Your task to perform on an android device: turn notification dots on Image 0: 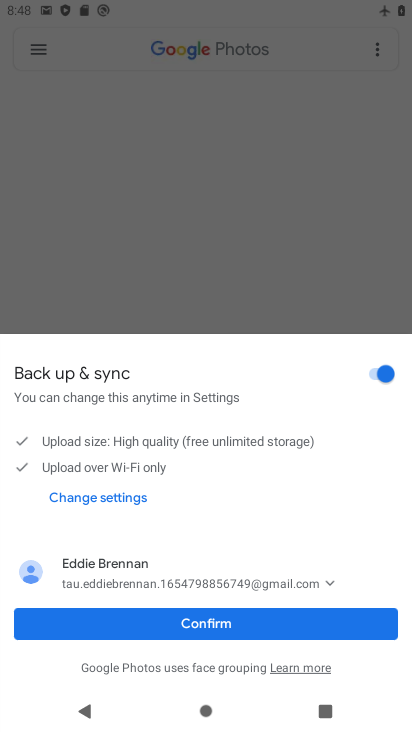
Step 0: press home button
Your task to perform on an android device: turn notification dots on Image 1: 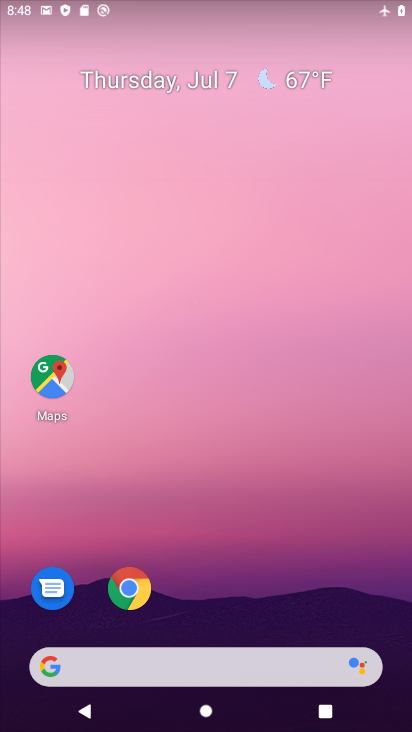
Step 1: drag from (235, 618) to (233, 46)
Your task to perform on an android device: turn notification dots on Image 2: 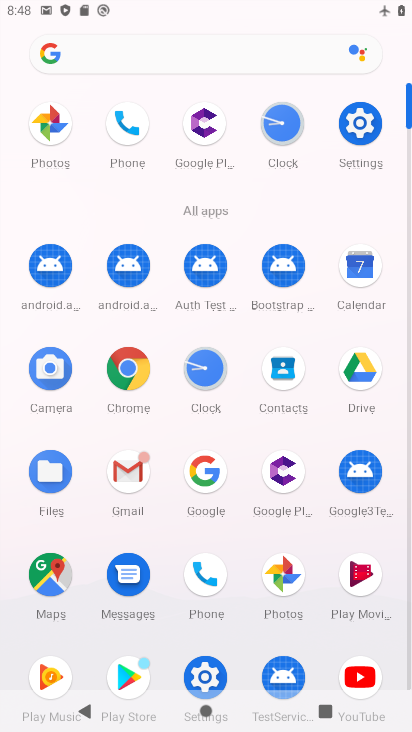
Step 2: click (358, 122)
Your task to perform on an android device: turn notification dots on Image 3: 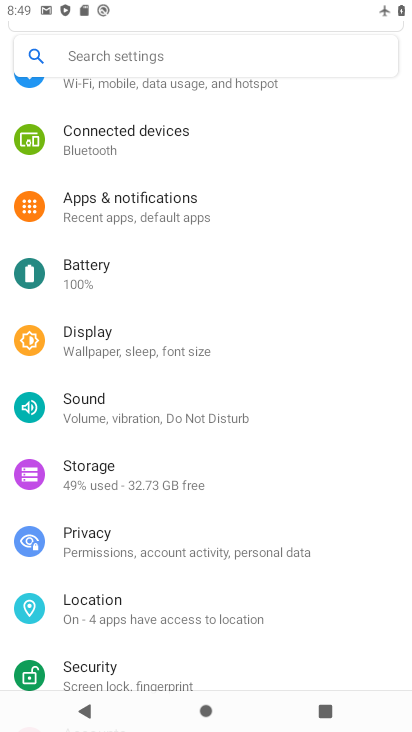
Step 3: click (102, 200)
Your task to perform on an android device: turn notification dots on Image 4: 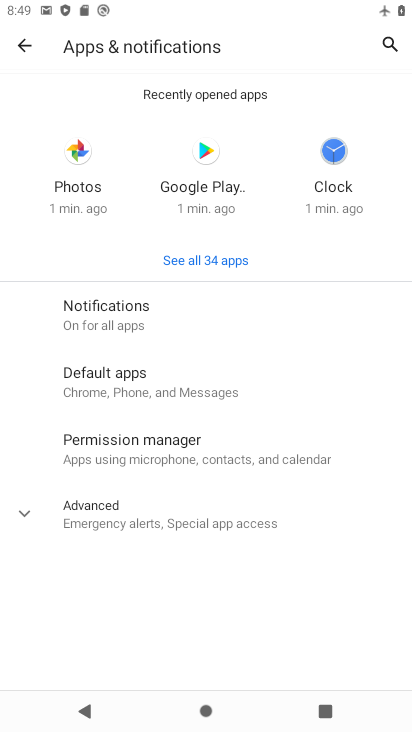
Step 4: click (114, 306)
Your task to perform on an android device: turn notification dots on Image 5: 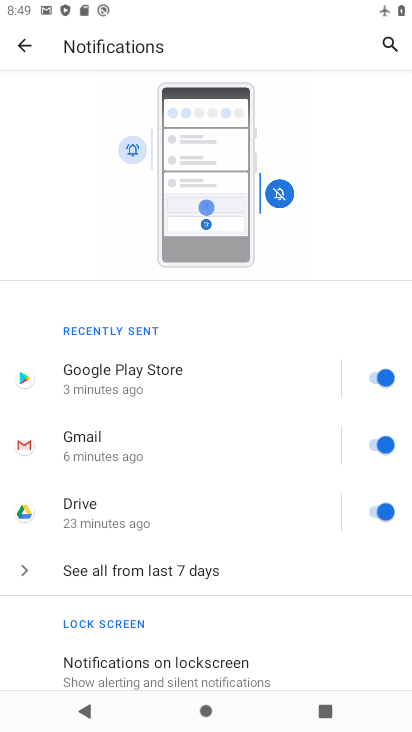
Step 5: drag from (144, 597) to (189, 439)
Your task to perform on an android device: turn notification dots on Image 6: 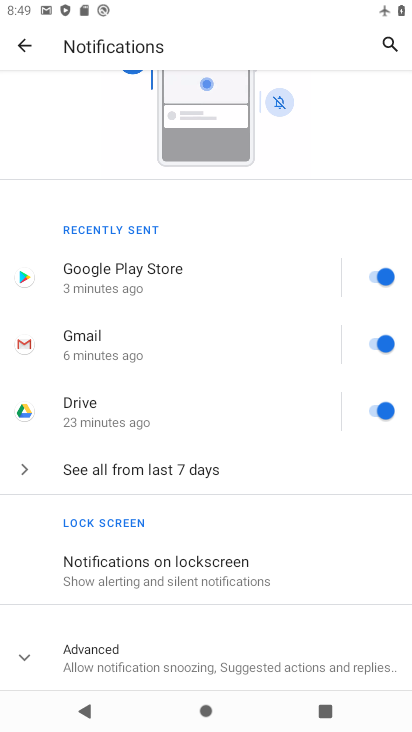
Step 6: click (145, 659)
Your task to perform on an android device: turn notification dots on Image 7: 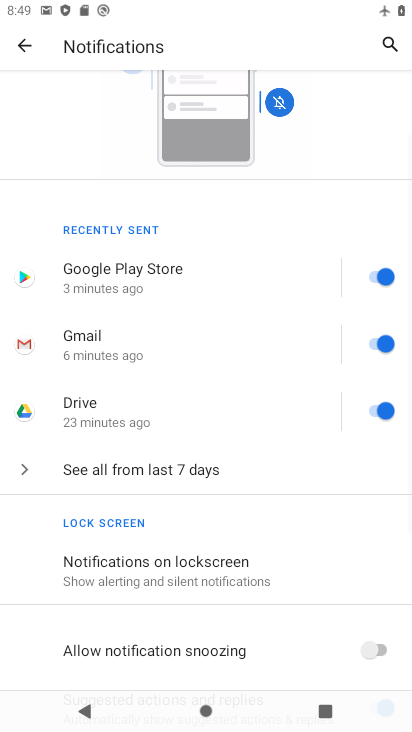
Step 7: task complete